Your task to perform on an android device: Open maps Image 0: 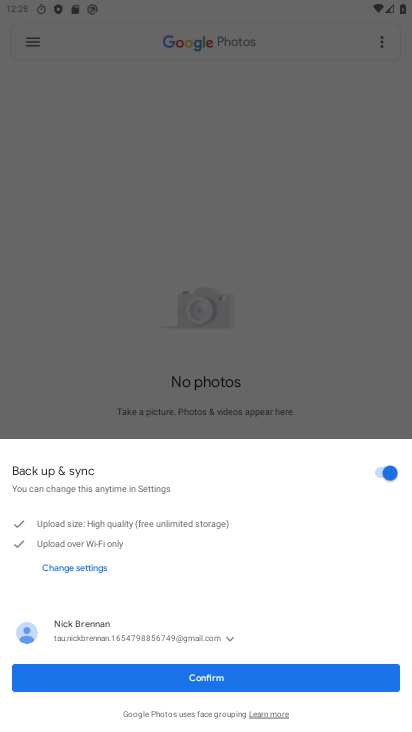
Step 0: press home button
Your task to perform on an android device: Open maps Image 1: 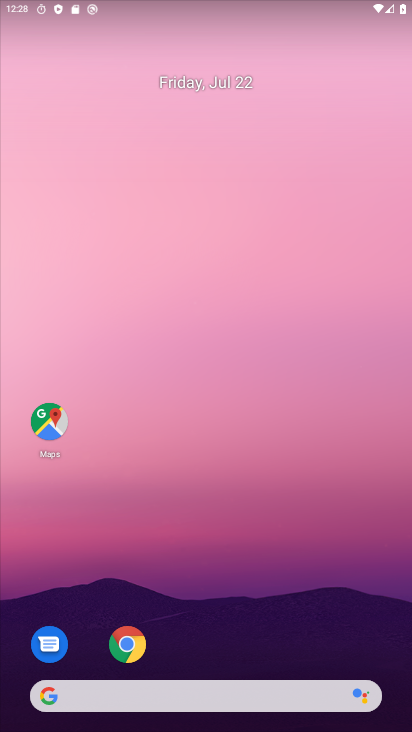
Step 1: drag from (204, 668) to (406, 198)
Your task to perform on an android device: Open maps Image 2: 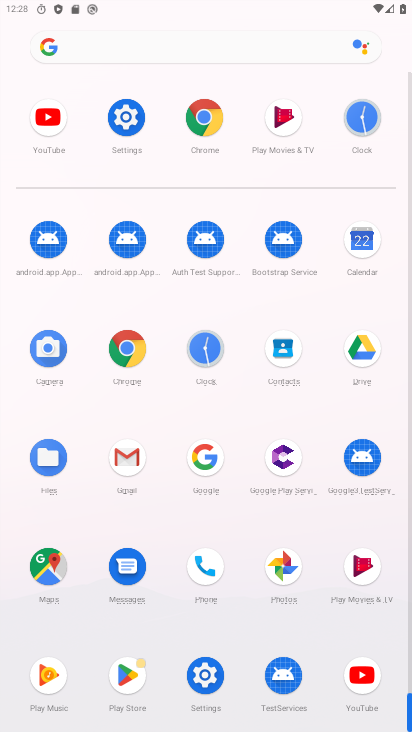
Step 2: click (55, 574)
Your task to perform on an android device: Open maps Image 3: 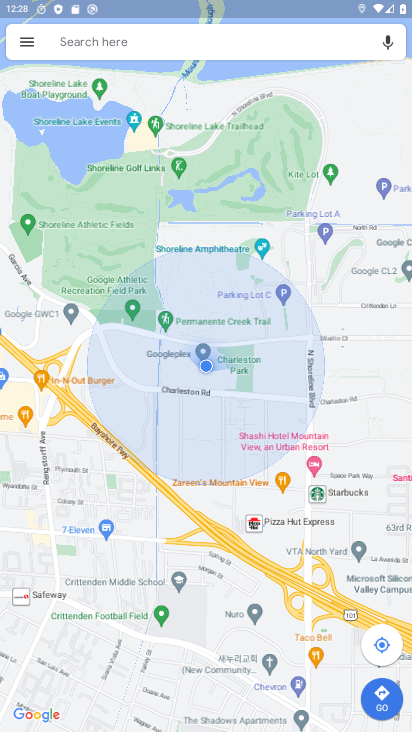
Step 3: task complete